Your task to perform on an android device: Open the Play Movies app and select the watchlist tab. Image 0: 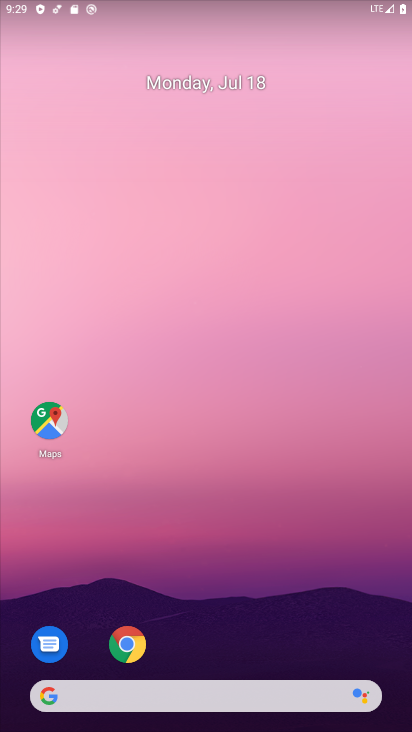
Step 0: drag from (340, 591) to (398, 249)
Your task to perform on an android device: Open the Play Movies app and select the watchlist tab. Image 1: 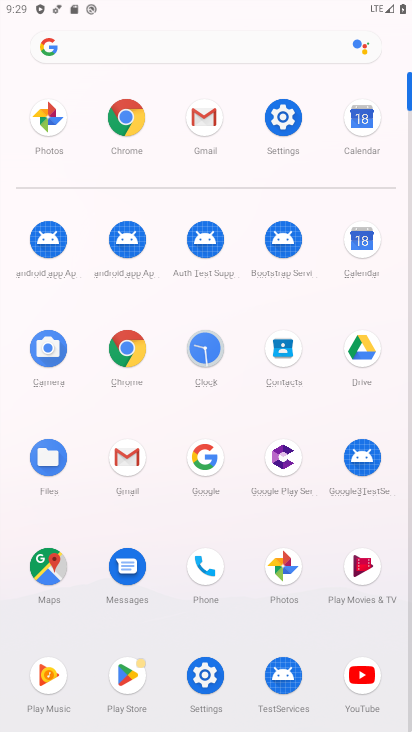
Step 1: click (366, 566)
Your task to perform on an android device: Open the Play Movies app and select the watchlist tab. Image 2: 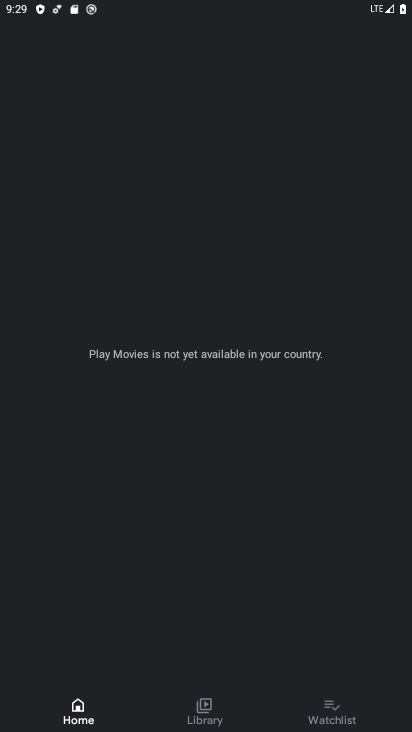
Step 2: click (337, 714)
Your task to perform on an android device: Open the Play Movies app and select the watchlist tab. Image 3: 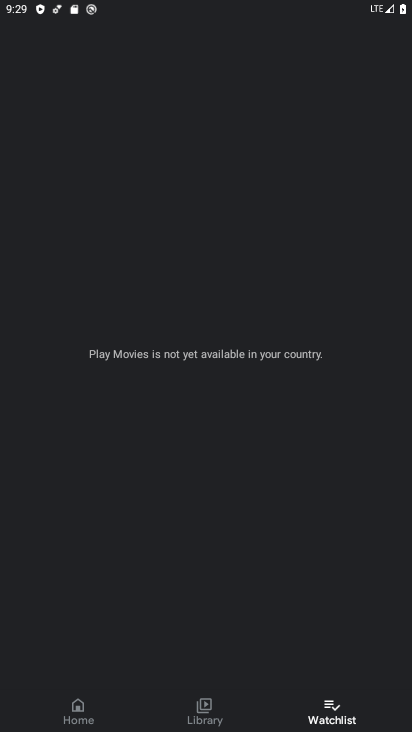
Step 3: task complete